Your task to perform on an android device: turn on javascript in the chrome app Image 0: 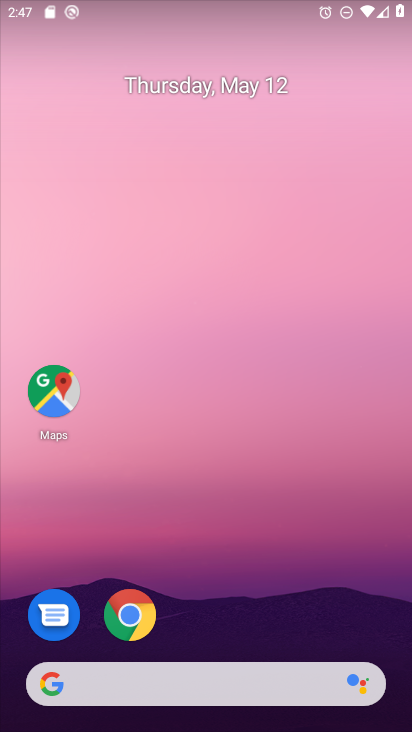
Step 0: drag from (267, 691) to (411, 273)
Your task to perform on an android device: turn on javascript in the chrome app Image 1: 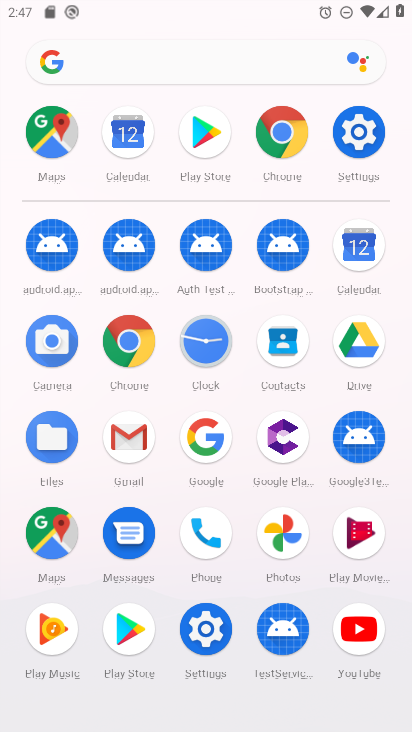
Step 1: click (116, 354)
Your task to perform on an android device: turn on javascript in the chrome app Image 2: 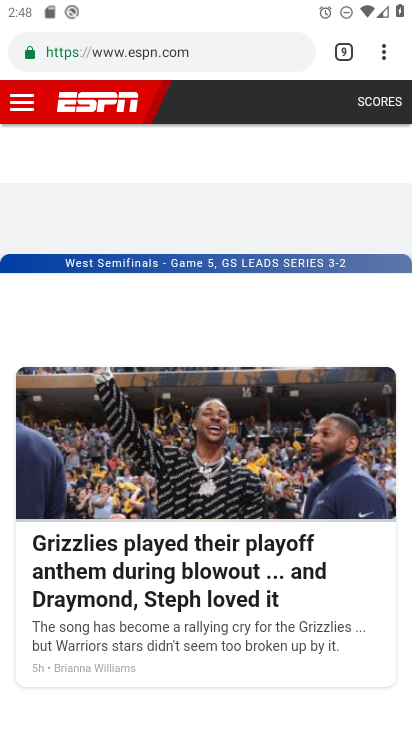
Step 2: drag from (375, 43) to (199, 631)
Your task to perform on an android device: turn on javascript in the chrome app Image 3: 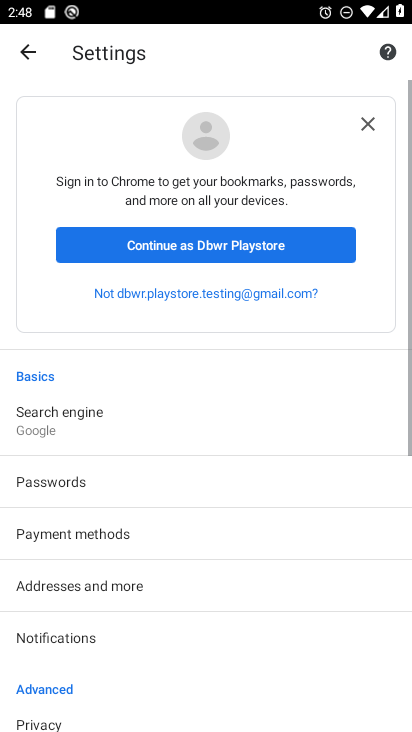
Step 3: drag from (169, 705) to (186, 143)
Your task to perform on an android device: turn on javascript in the chrome app Image 4: 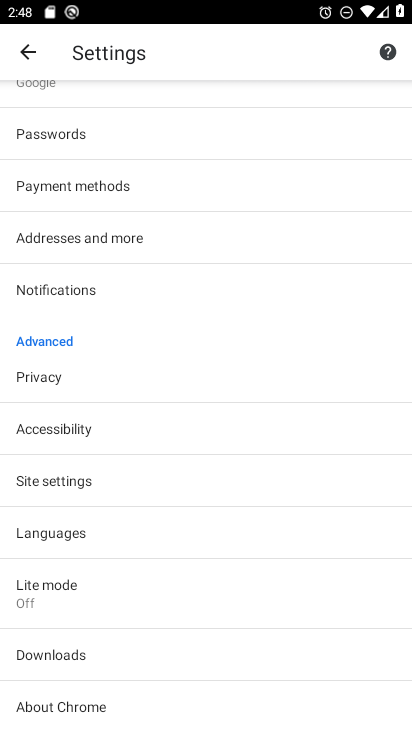
Step 4: drag from (134, 654) to (184, 322)
Your task to perform on an android device: turn on javascript in the chrome app Image 5: 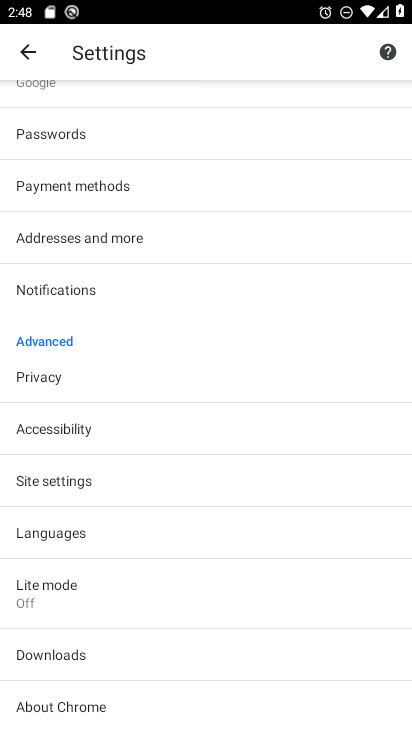
Step 5: click (111, 489)
Your task to perform on an android device: turn on javascript in the chrome app Image 6: 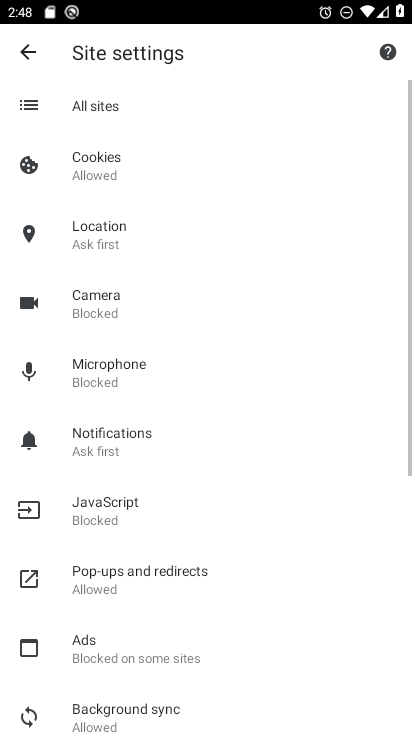
Step 6: click (121, 518)
Your task to perform on an android device: turn on javascript in the chrome app Image 7: 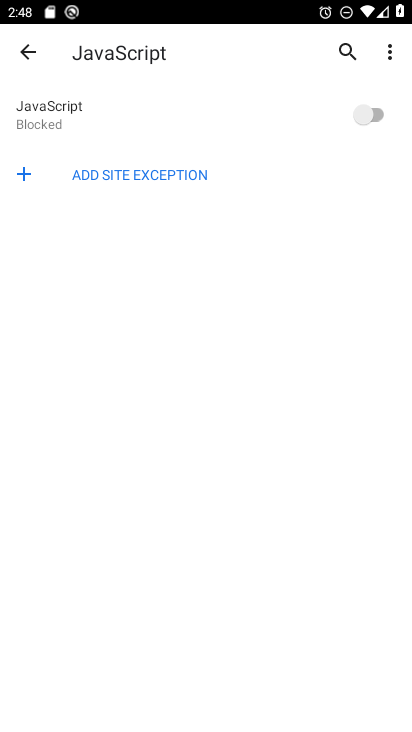
Step 7: click (377, 116)
Your task to perform on an android device: turn on javascript in the chrome app Image 8: 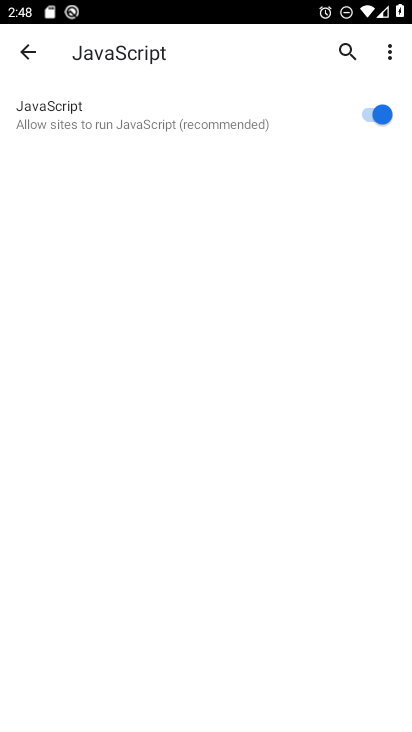
Step 8: task complete